Your task to perform on an android device: check out phone information Image 0: 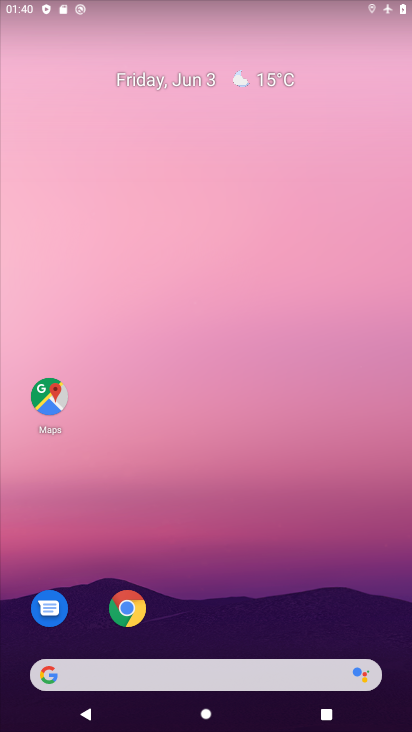
Step 0: drag from (246, 546) to (238, 173)
Your task to perform on an android device: check out phone information Image 1: 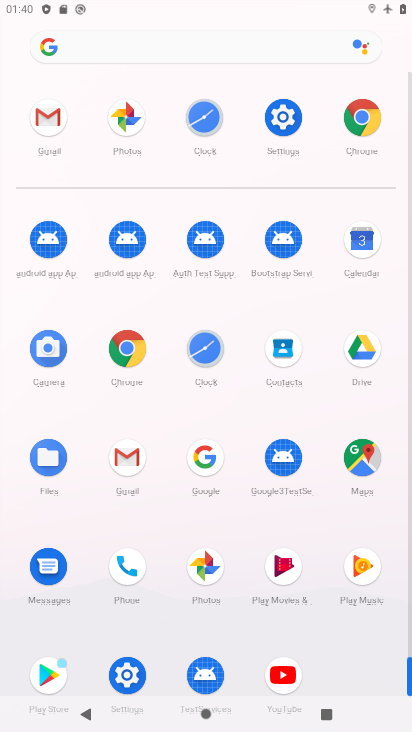
Step 1: click (129, 575)
Your task to perform on an android device: check out phone information Image 2: 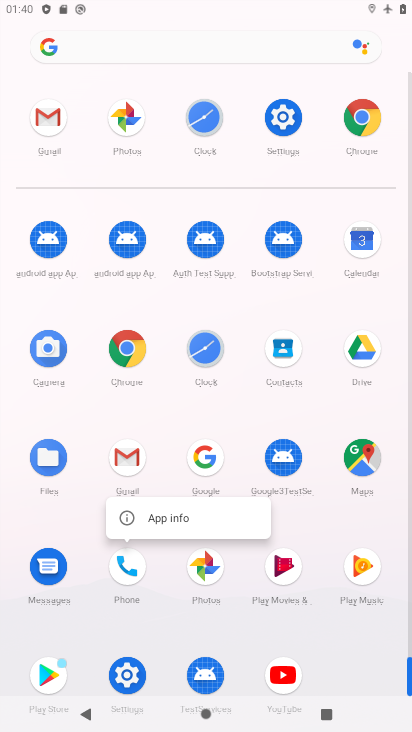
Step 2: click (181, 512)
Your task to perform on an android device: check out phone information Image 3: 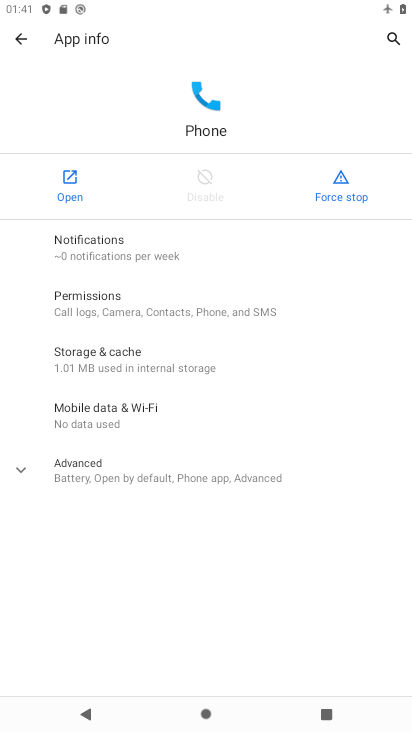
Step 3: task complete